Your task to perform on an android device: Check the news Image 0: 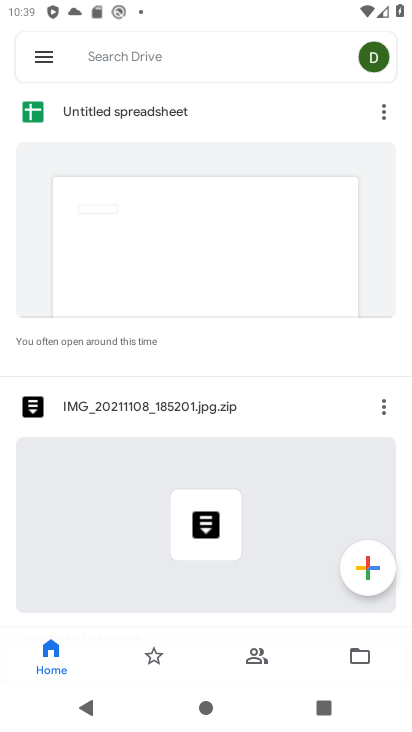
Step 0: press home button
Your task to perform on an android device: Check the news Image 1: 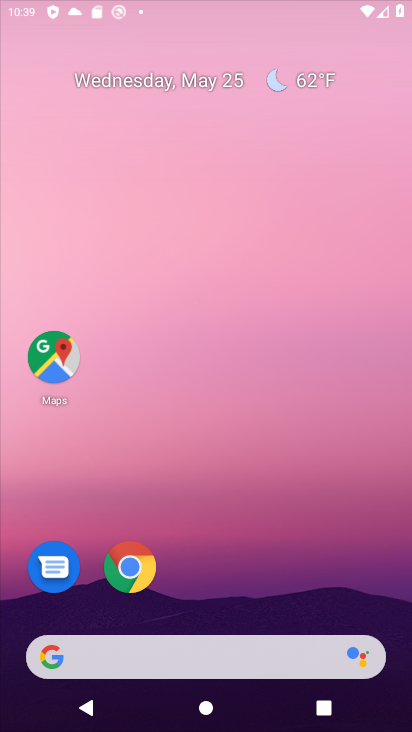
Step 1: drag from (384, 621) to (236, 39)
Your task to perform on an android device: Check the news Image 2: 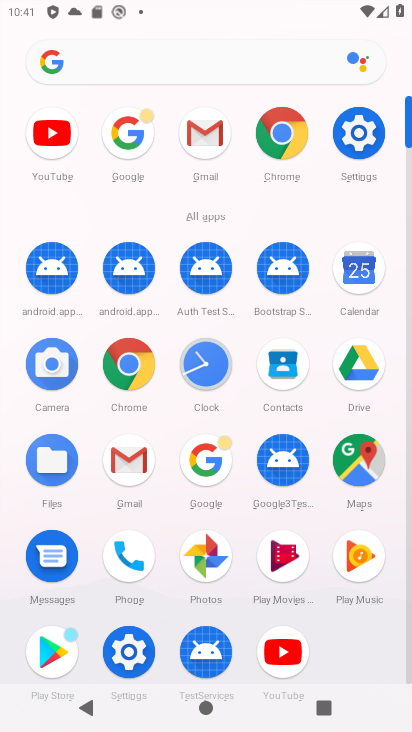
Step 2: click (192, 467)
Your task to perform on an android device: Check the news Image 3: 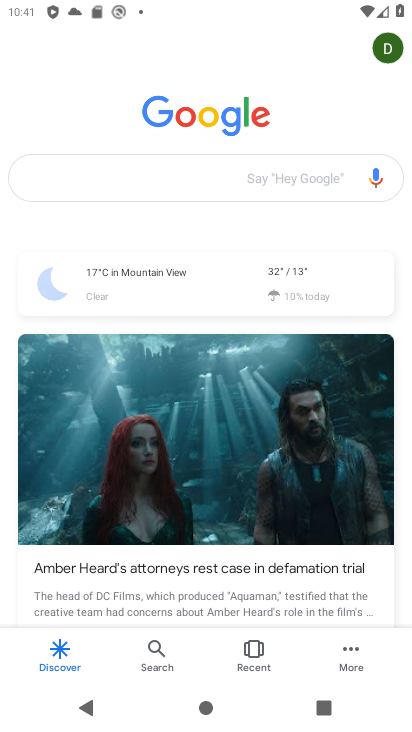
Step 3: click (167, 180)
Your task to perform on an android device: Check the news Image 4: 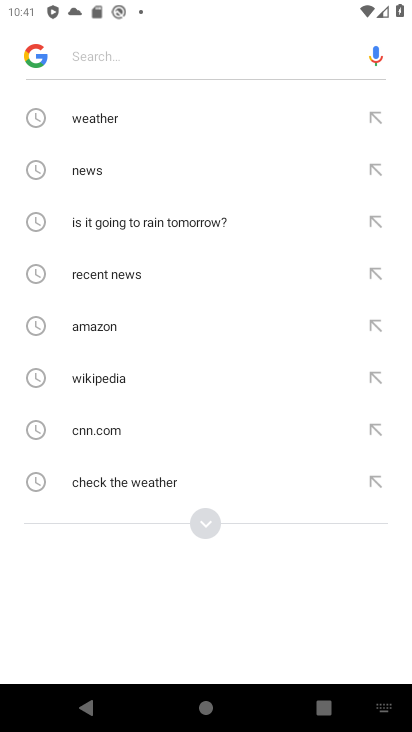
Step 4: click (203, 520)
Your task to perform on an android device: Check the news Image 5: 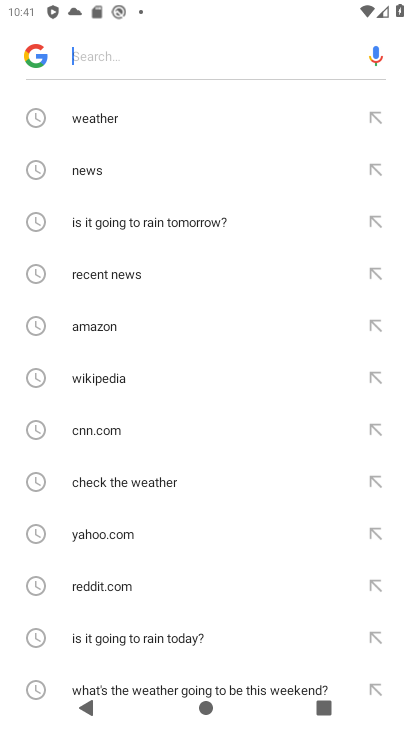
Step 5: drag from (171, 651) to (222, 362)
Your task to perform on an android device: Check the news Image 6: 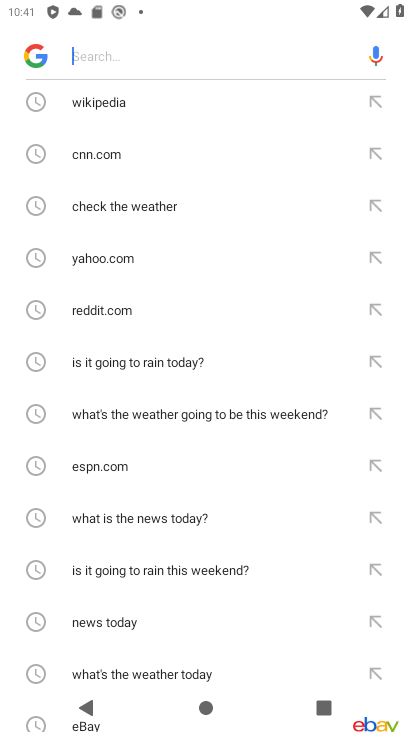
Step 6: drag from (147, 651) to (204, 380)
Your task to perform on an android device: Check the news Image 7: 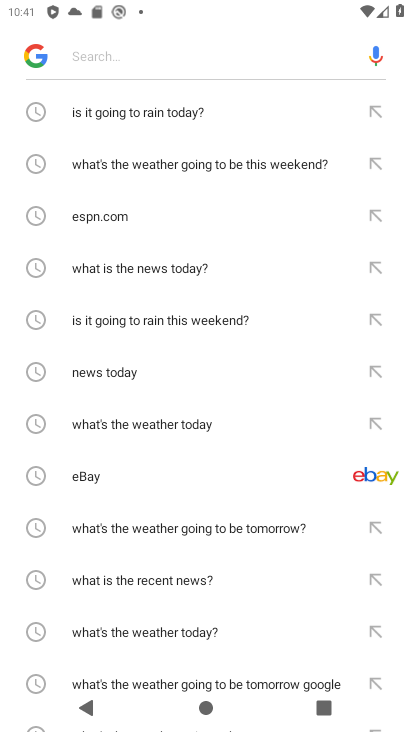
Step 7: drag from (184, 187) to (194, 670)
Your task to perform on an android device: Check the news Image 8: 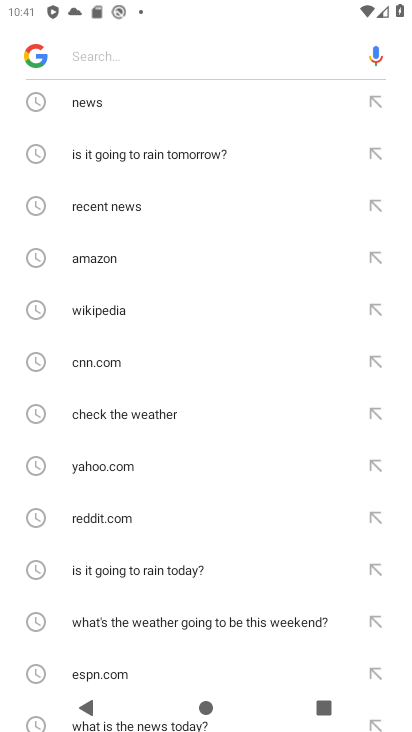
Step 8: click (118, 108)
Your task to perform on an android device: Check the news Image 9: 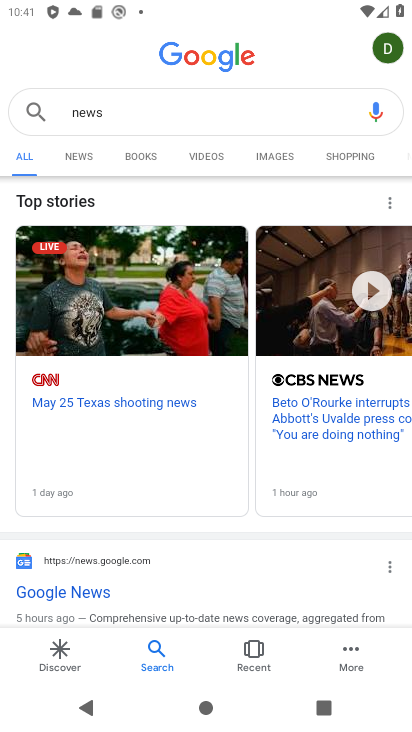
Step 9: task complete